Your task to perform on an android device: Show me recent news Image 0: 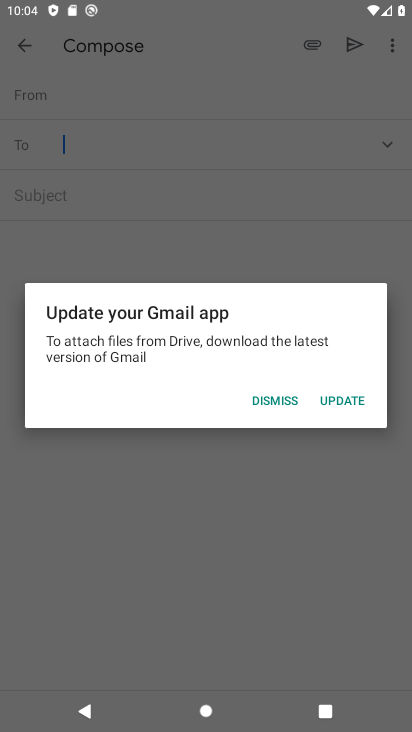
Step 0: press home button
Your task to perform on an android device: Show me recent news Image 1: 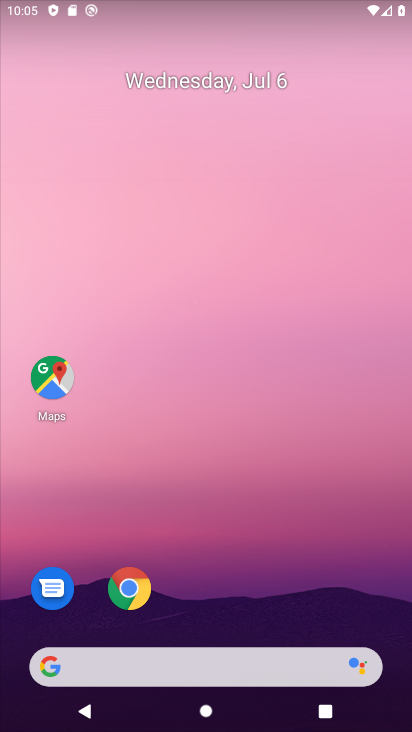
Step 1: click (202, 668)
Your task to perform on an android device: Show me recent news Image 2: 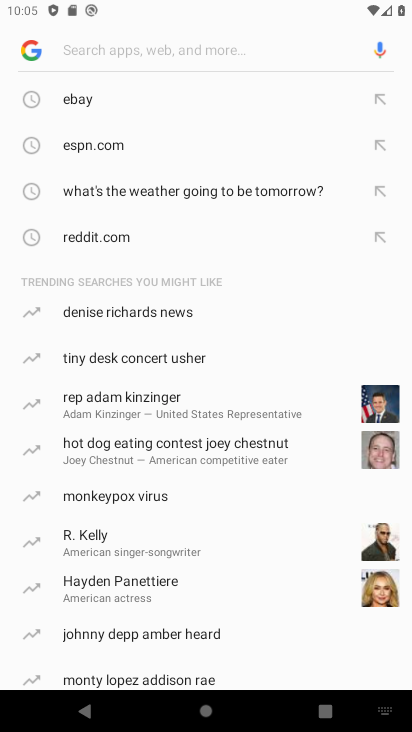
Step 2: type "news"
Your task to perform on an android device: Show me recent news Image 3: 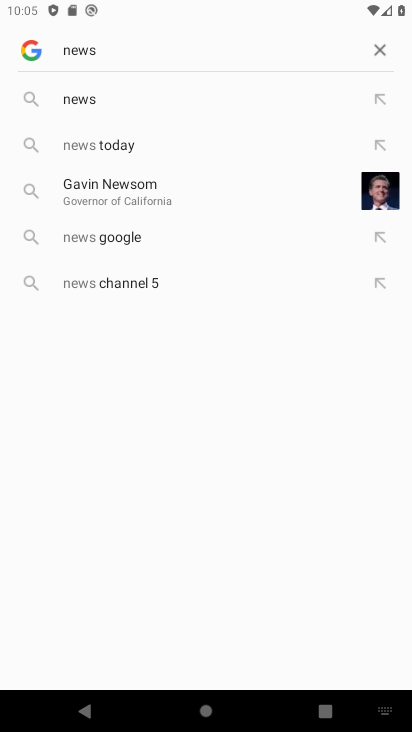
Step 3: click (92, 89)
Your task to perform on an android device: Show me recent news Image 4: 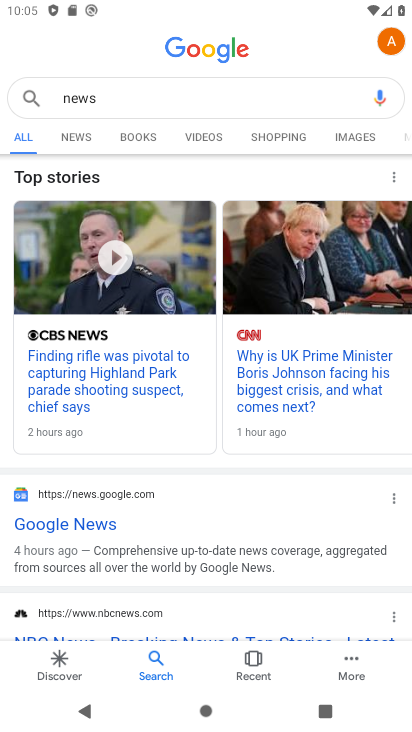
Step 4: task complete